Your task to perform on an android device: open app "Roku - Official Remote Control" Image 0: 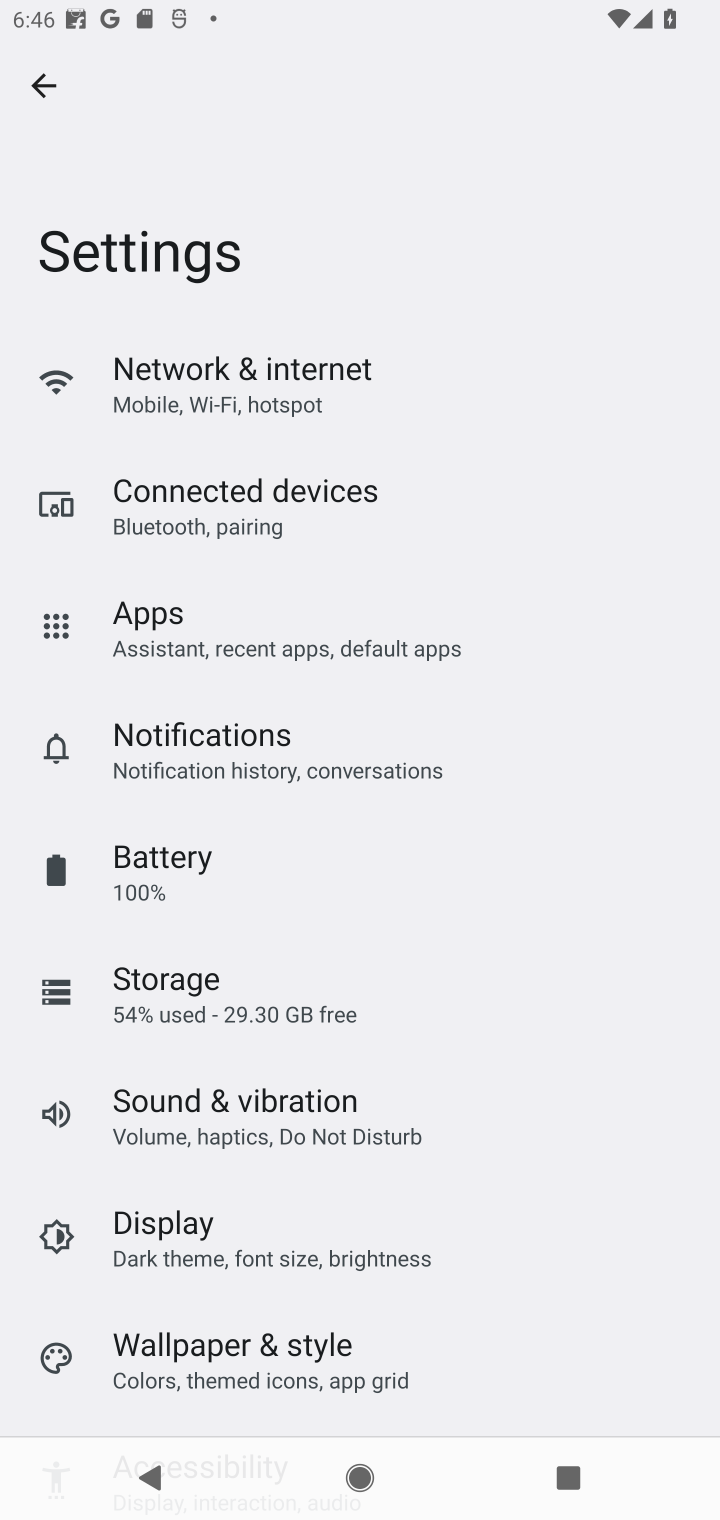
Step 0: press home button
Your task to perform on an android device: open app "Roku - Official Remote Control" Image 1: 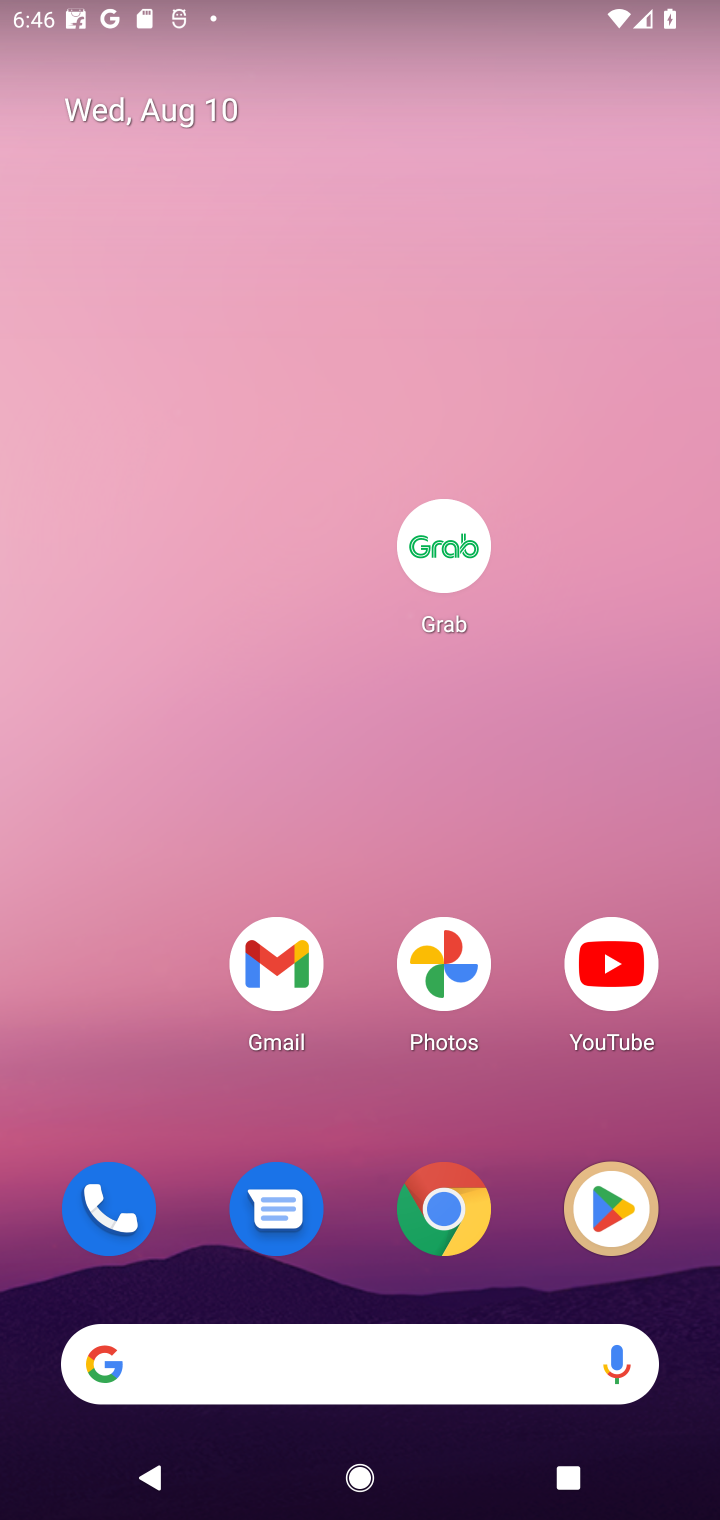
Step 1: click (592, 1212)
Your task to perform on an android device: open app "Roku - Official Remote Control" Image 2: 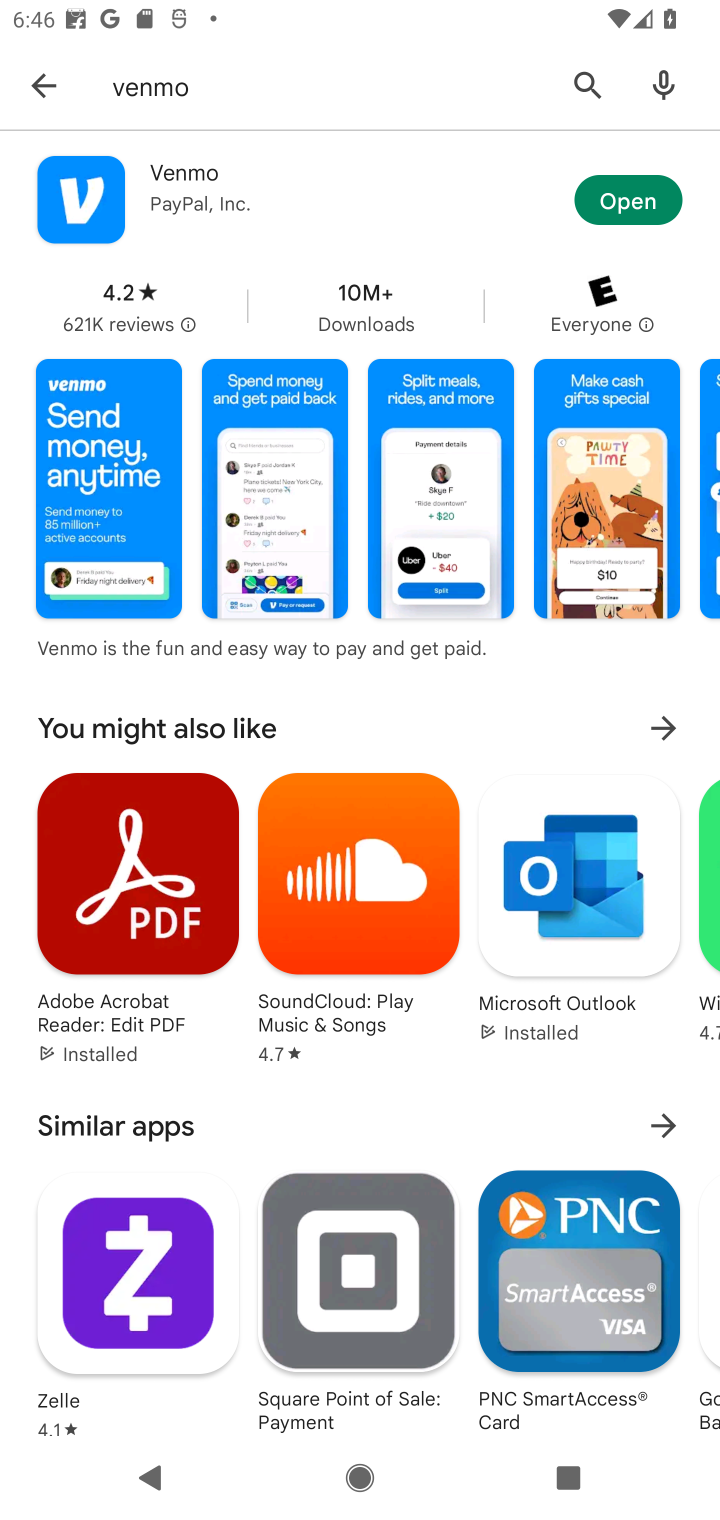
Step 2: click (581, 85)
Your task to perform on an android device: open app "Roku - Official Remote Control" Image 3: 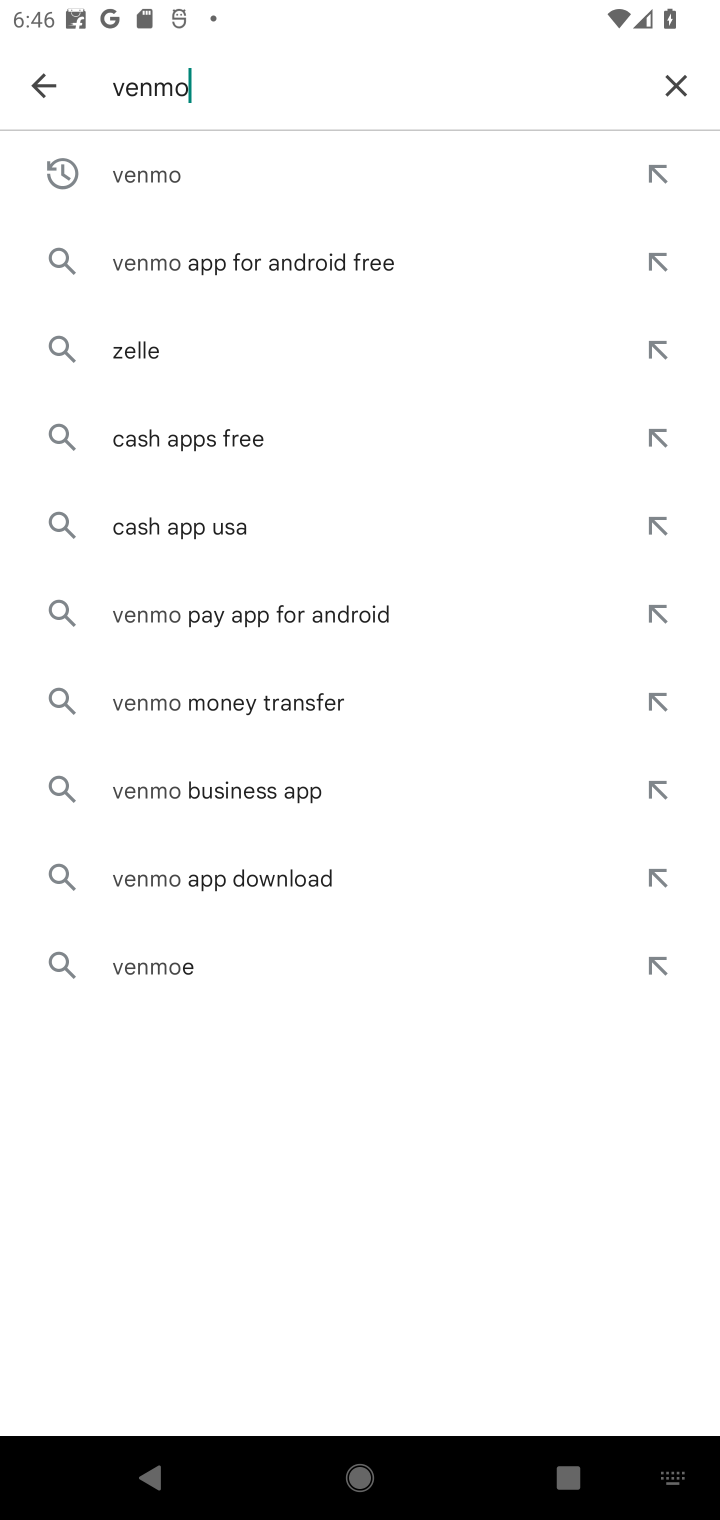
Step 3: click (669, 82)
Your task to perform on an android device: open app "Roku - Official Remote Control" Image 4: 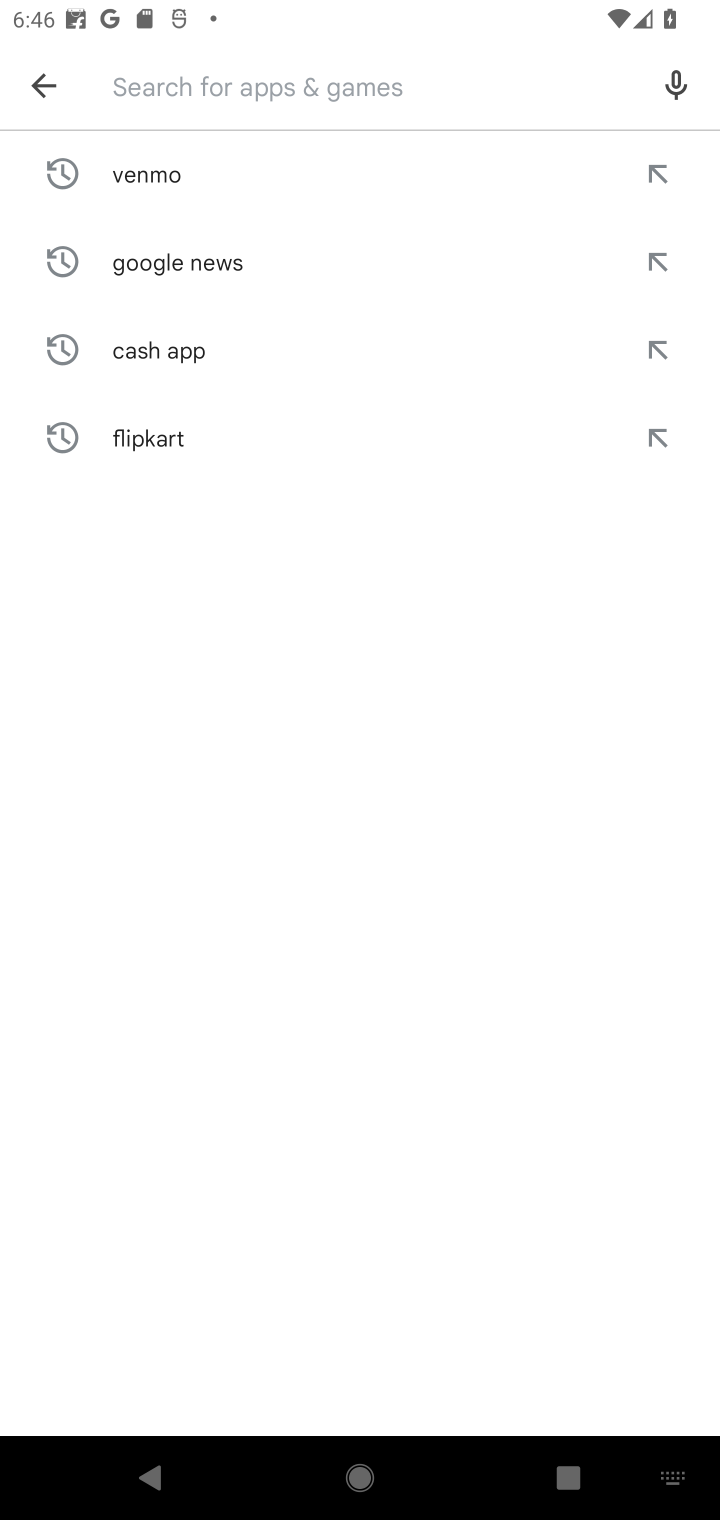
Step 4: type "roku"
Your task to perform on an android device: open app "Roku - Official Remote Control" Image 5: 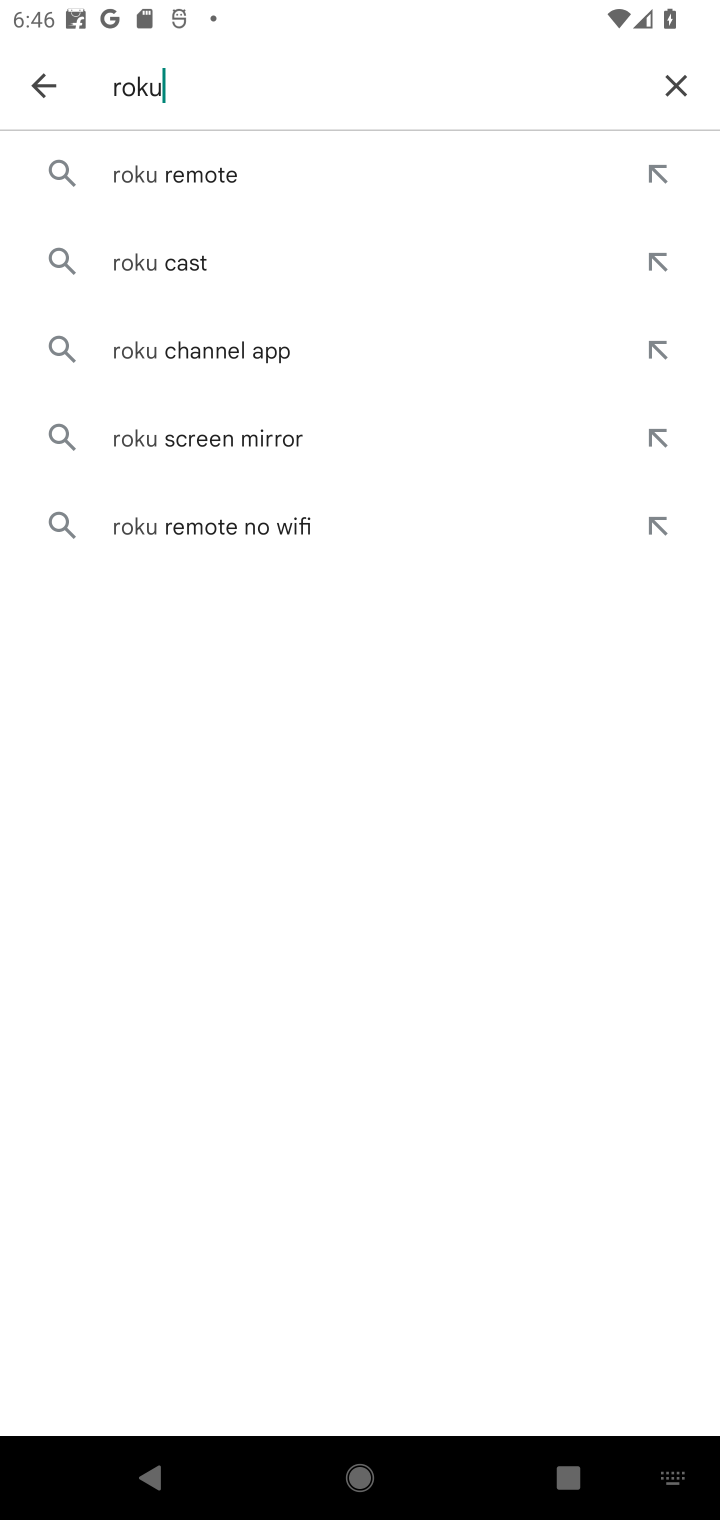
Step 5: click (434, 173)
Your task to perform on an android device: open app "Roku - Official Remote Control" Image 6: 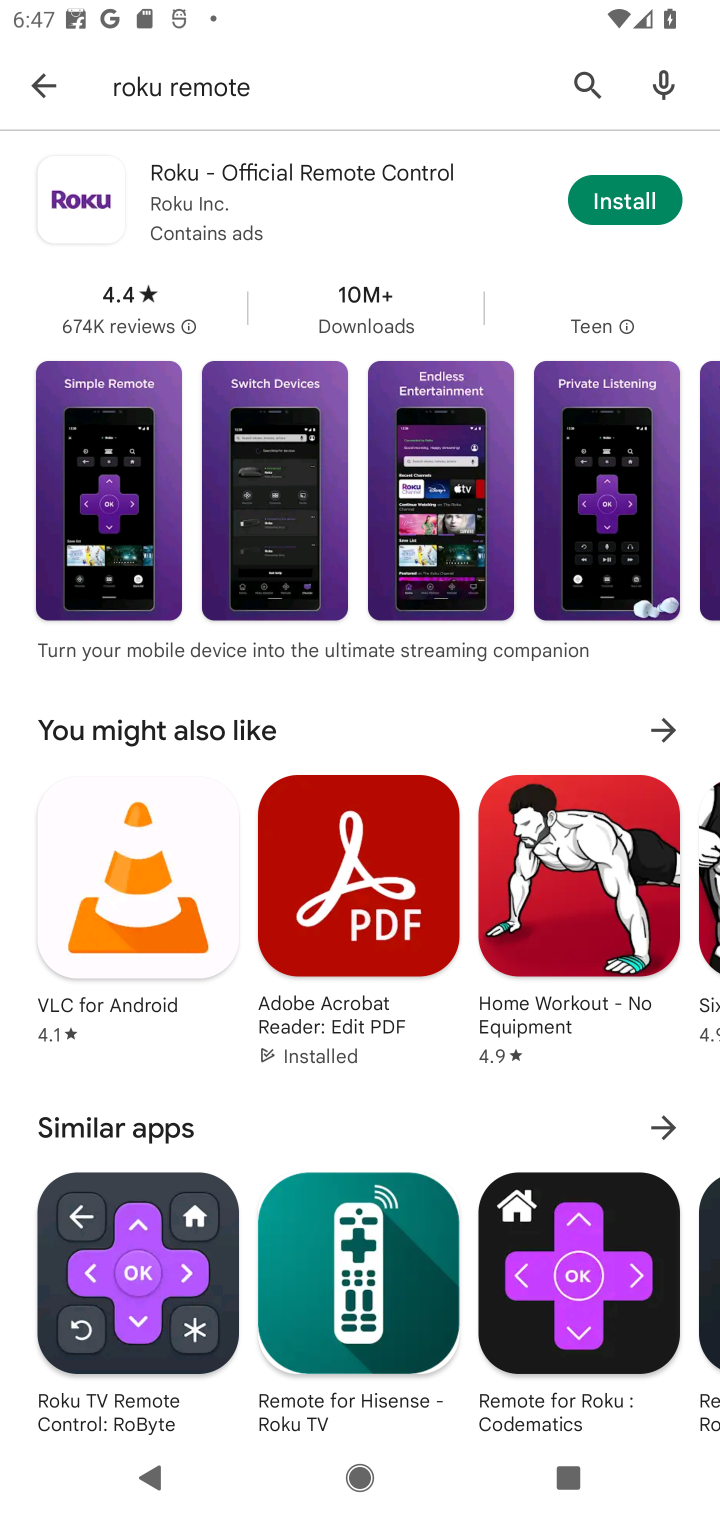
Step 6: click (581, 210)
Your task to perform on an android device: open app "Roku - Official Remote Control" Image 7: 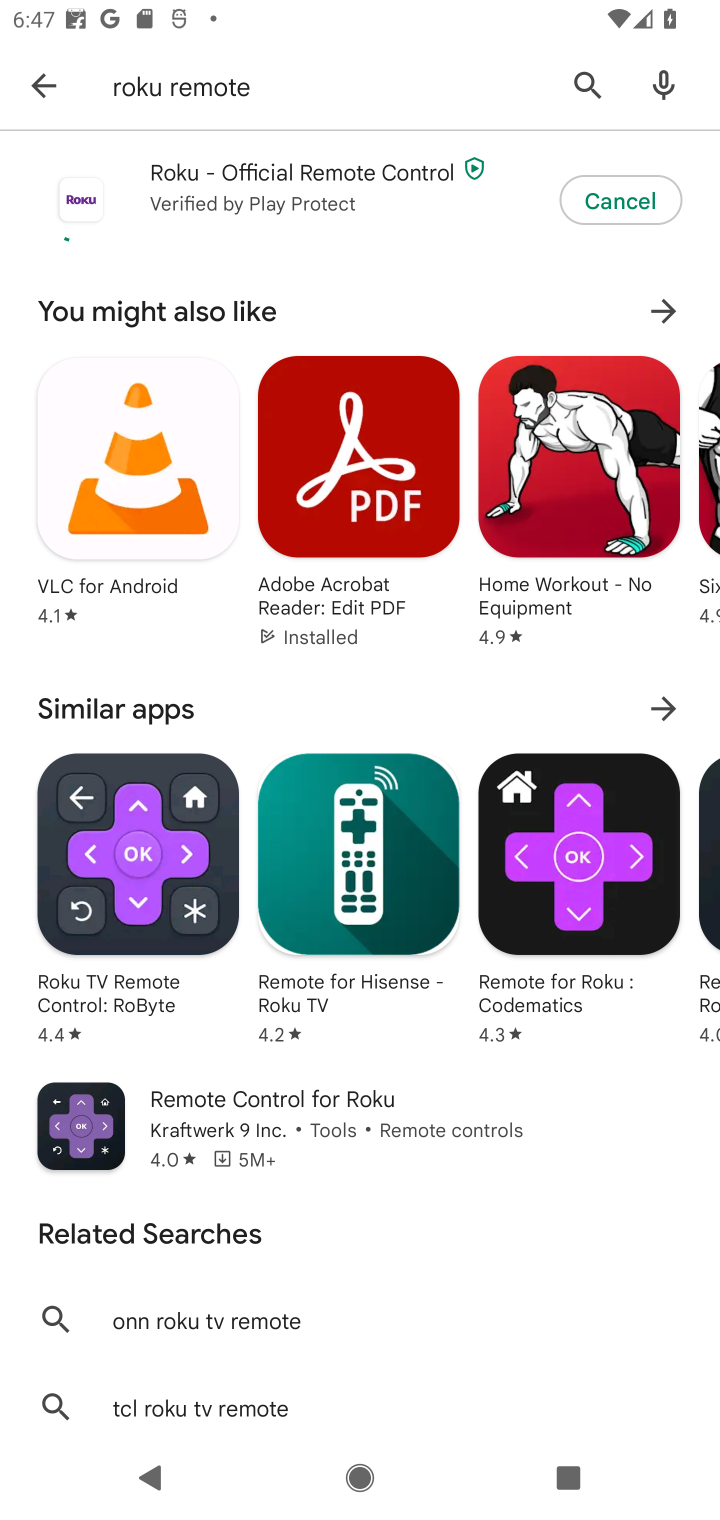
Step 7: task complete